Your task to perform on an android device: find which apps use the phone's location Image 0: 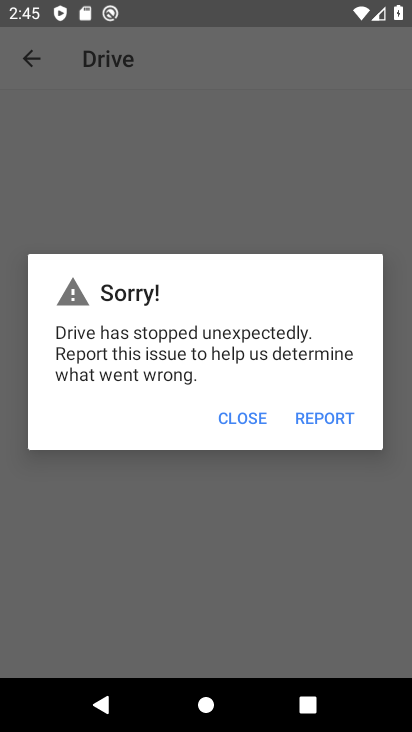
Step 0: press home button
Your task to perform on an android device: find which apps use the phone's location Image 1: 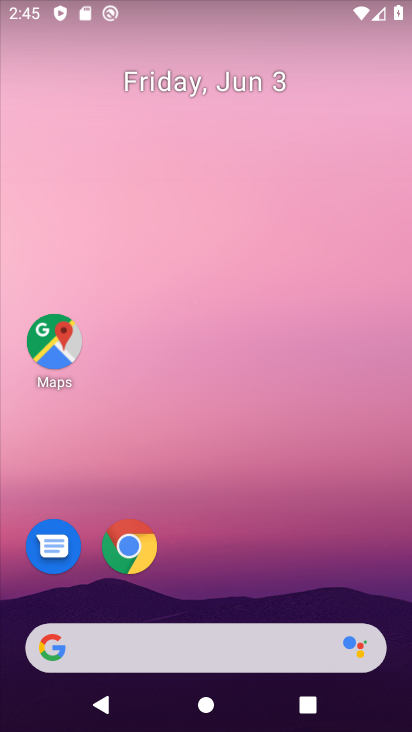
Step 1: drag from (357, 592) to (285, 72)
Your task to perform on an android device: find which apps use the phone's location Image 2: 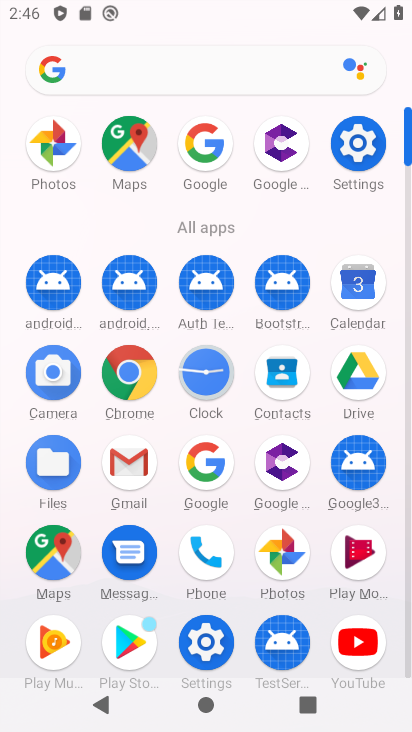
Step 2: click (215, 637)
Your task to perform on an android device: find which apps use the phone's location Image 3: 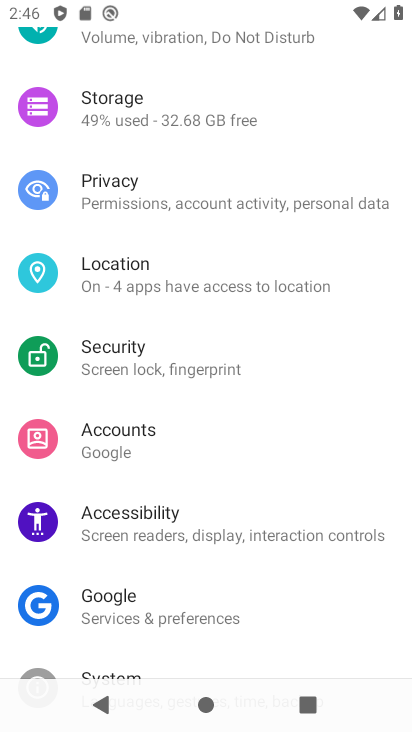
Step 3: click (124, 279)
Your task to perform on an android device: find which apps use the phone's location Image 4: 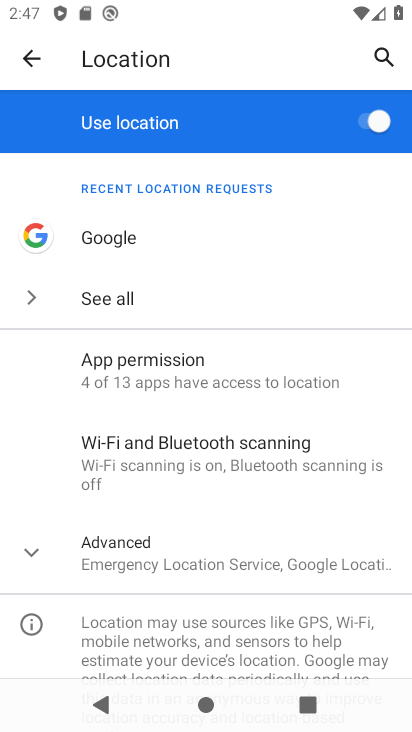
Step 4: task complete